Your task to perform on an android device: create a new album in the google photos Image 0: 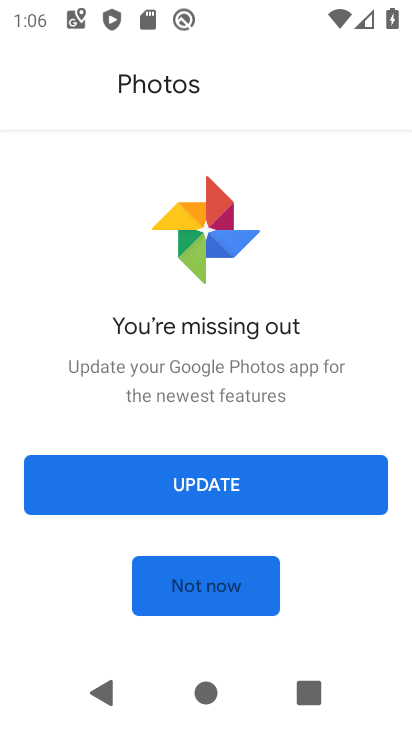
Step 0: press home button
Your task to perform on an android device: create a new album in the google photos Image 1: 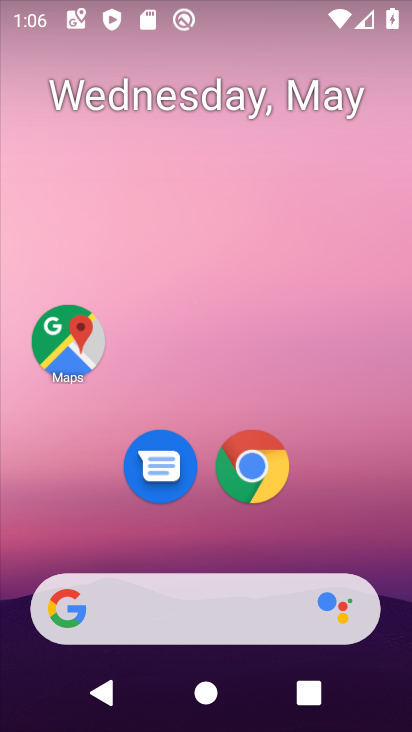
Step 1: drag from (212, 520) to (245, 97)
Your task to perform on an android device: create a new album in the google photos Image 2: 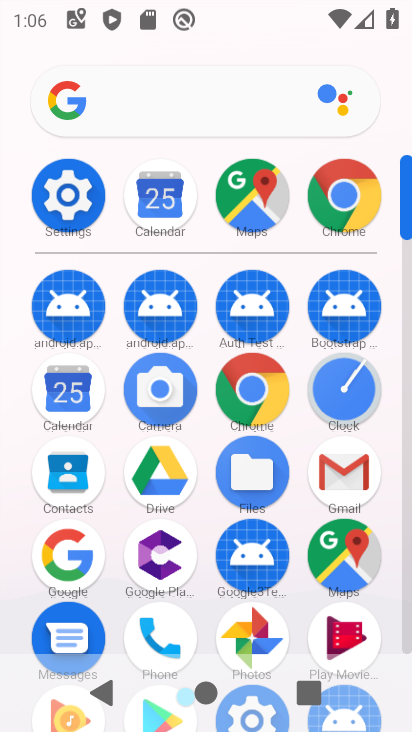
Step 2: drag from (199, 584) to (231, 262)
Your task to perform on an android device: create a new album in the google photos Image 3: 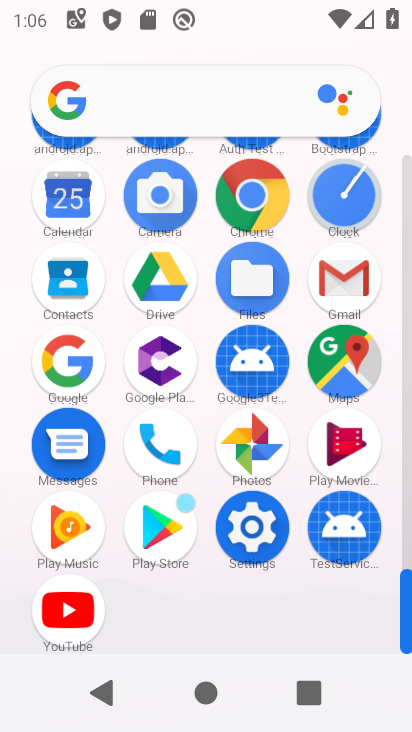
Step 3: click (254, 450)
Your task to perform on an android device: create a new album in the google photos Image 4: 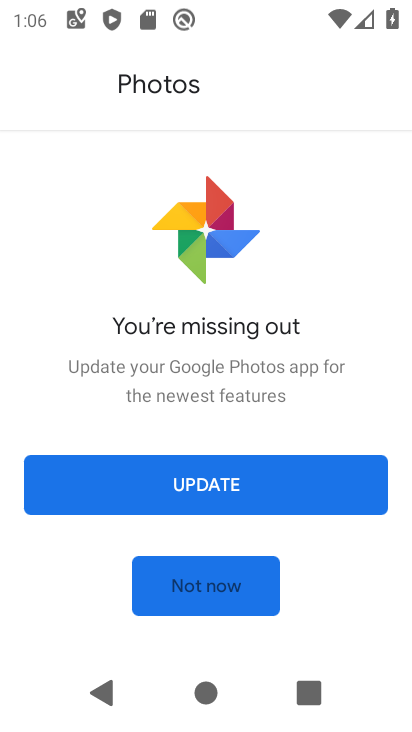
Step 4: click (200, 486)
Your task to perform on an android device: create a new album in the google photos Image 5: 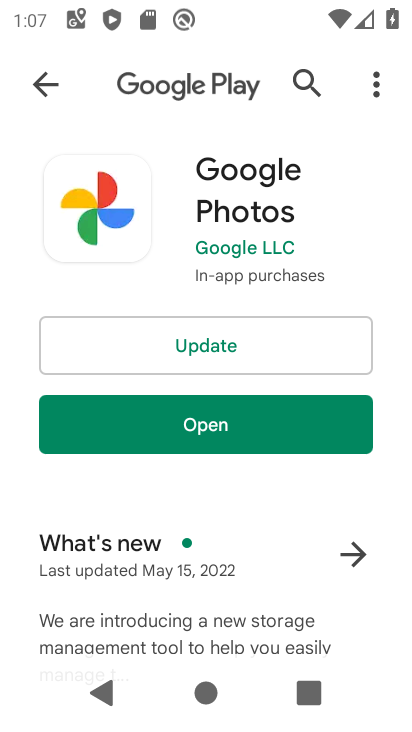
Step 5: click (202, 331)
Your task to perform on an android device: create a new album in the google photos Image 6: 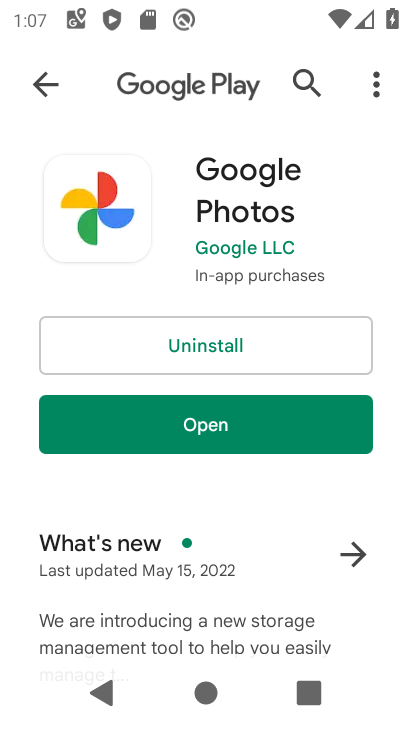
Step 6: click (220, 423)
Your task to perform on an android device: create a new album in the google photos Image 7: 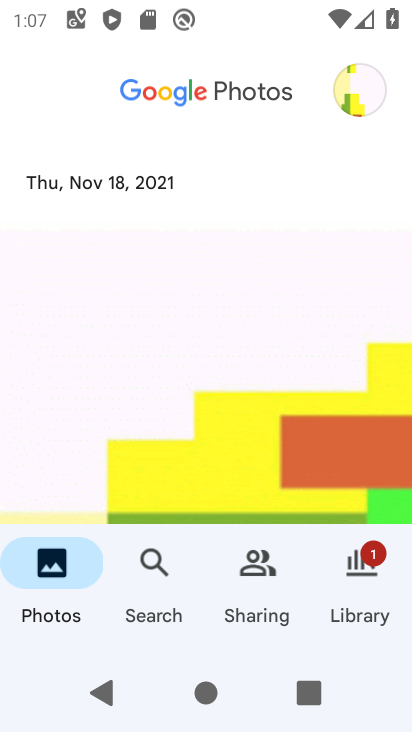
Step 7: drag from (270, 467) to (265, 26)
Your task to perform on an android device: create a new album in the google photos Image 8: 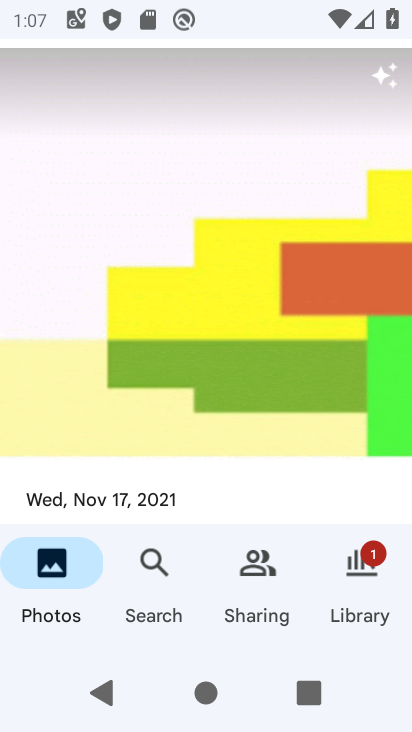
Step 8: drag from (192, 482) to (232, 223)
Your task to perform on an android device: create a new album in the google photos Image 9: 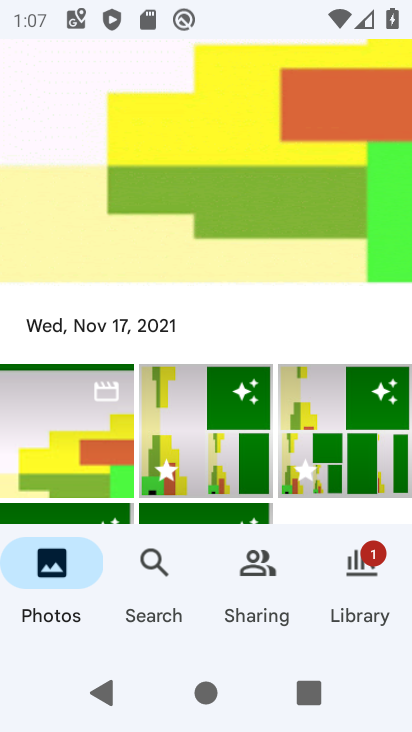
Step 9: click (358, 591)
Your task to perform on an android device: create a new album in the google photos Image 10: 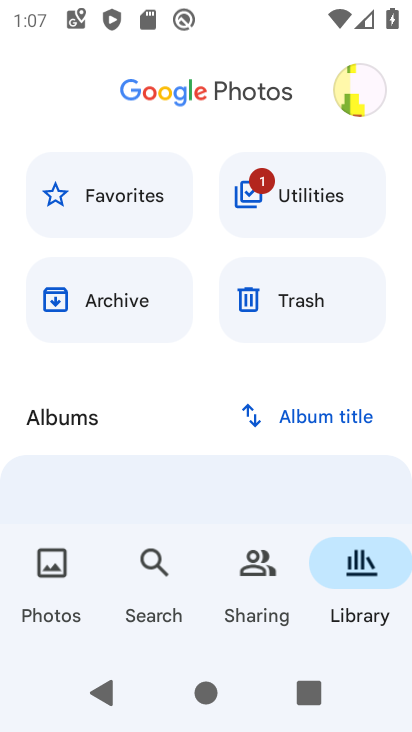
Step 10: drag from (202, 420) to (205, 113)
Your task to perform on an android device: create a new album in the google photos Image 11: 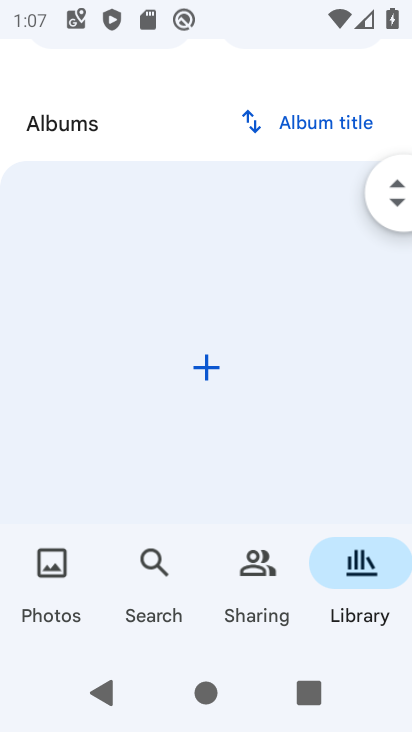
Step 11: click (206, 376)
Your task to perform on an android device: create a new album in the google photos Image 12: 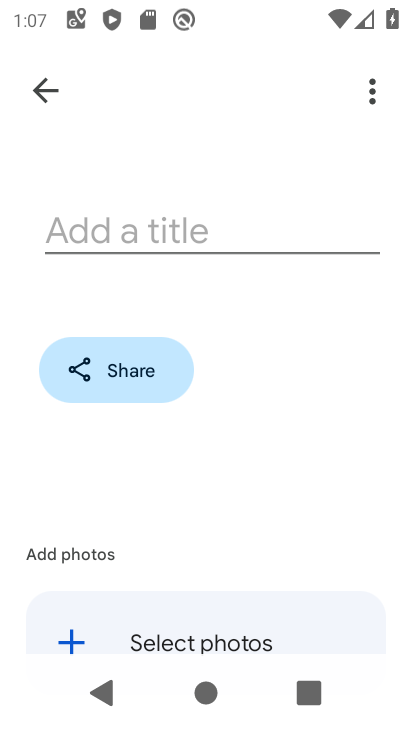
Step 12: click (205, 238)
Your task to perform on an android device: create a new album in the google photos Image 13: 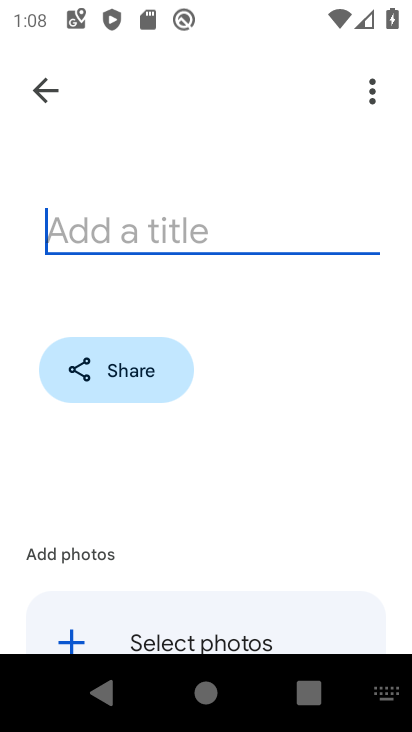
Step 13: type "jhfhdf"
Your task to perform on an android device: create a new album in the google photos Image 14: 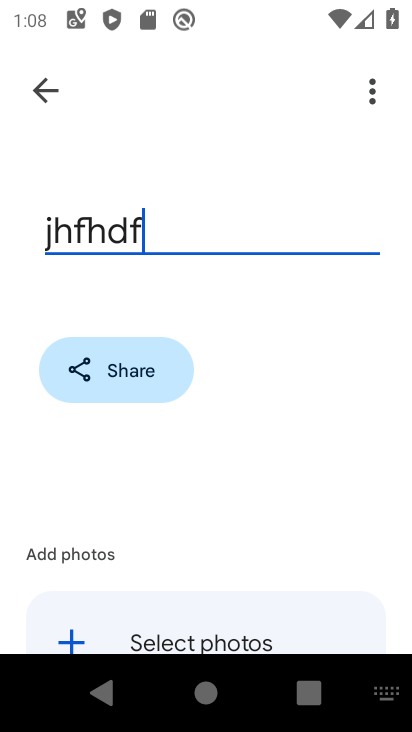
Step 14: drag from (166, 495) to (172, 273)
Your task to perform on an android device: create a new album in the google photos Image 15: 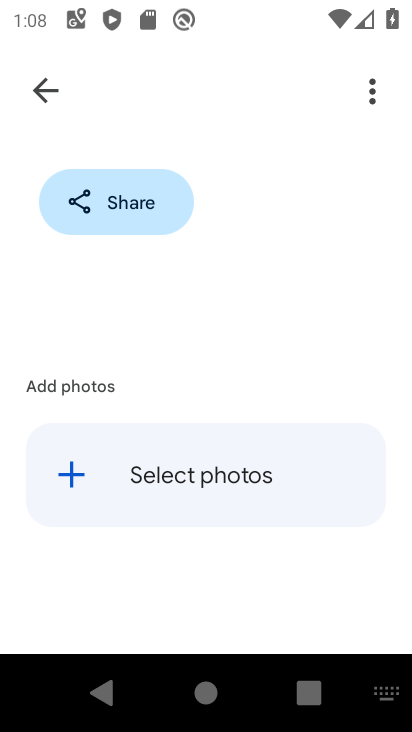
Step 15: click (67, 479)
Your task to perform on an android device: create a new album in the google photos Image 16: 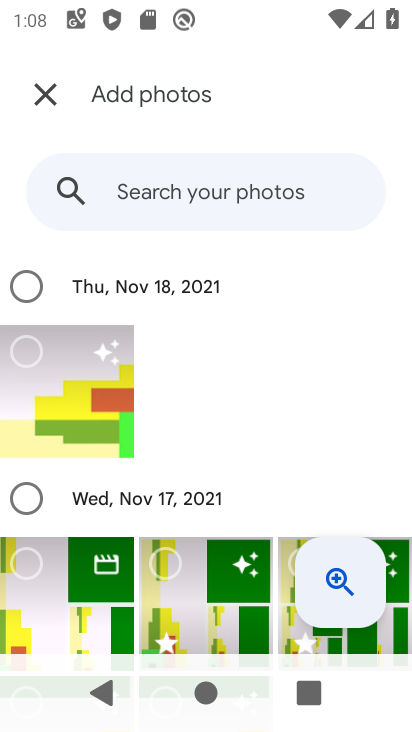
Step 16: click (30, 356)
Your task to perform on an android device: create a new album in the google photos Image 17: 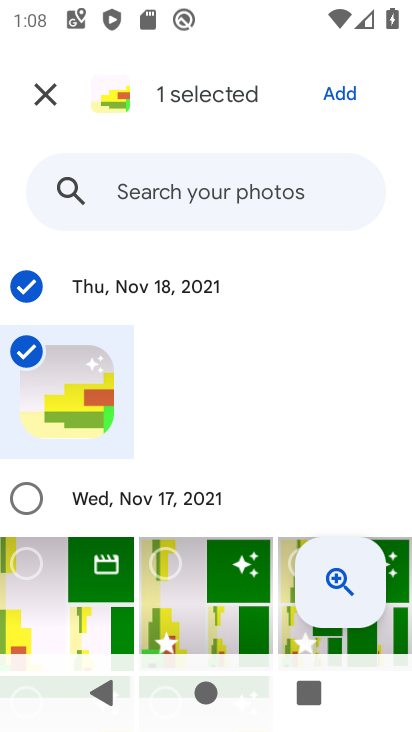
Step 17: click (331, 95)
Your task to perform on an android device: create a new album in the google photos Image 18: 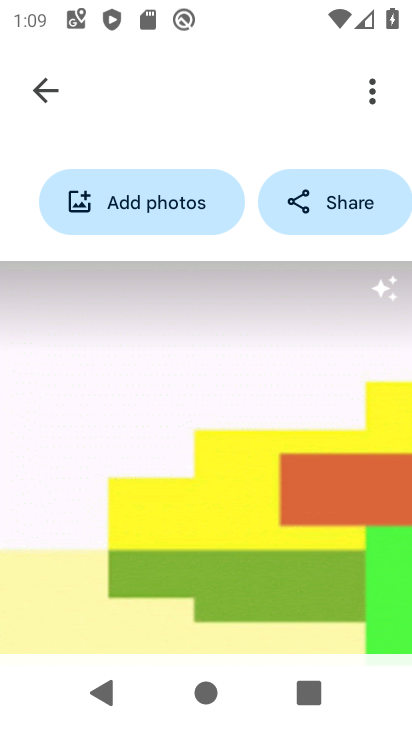
Step 18: task complete